Your task to perform on an android device: check android version Image 0: 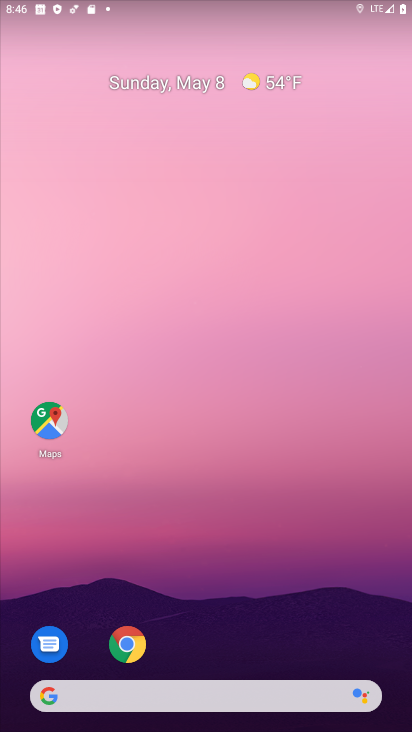
Step 0: click (403, 387)
Your task to perform on an android device: check android version Image 1: 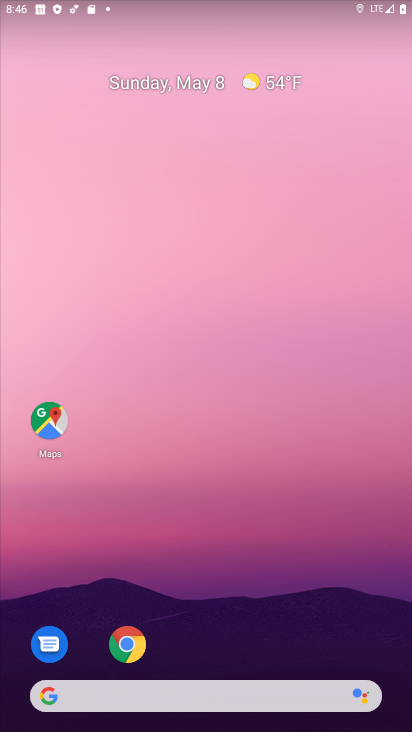
Step 1: drag from (213, 661) to (281, 213)
Your task to perform on an android device: check android version Image 2: 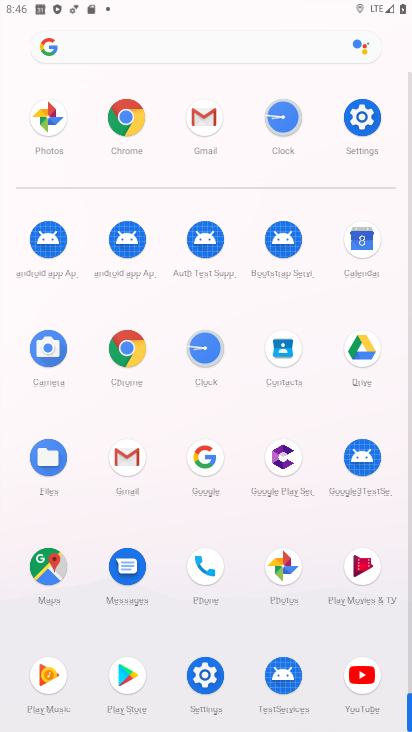
Step 2: click (212, 676)
Your task to perform on an android device: check android version Image 3: 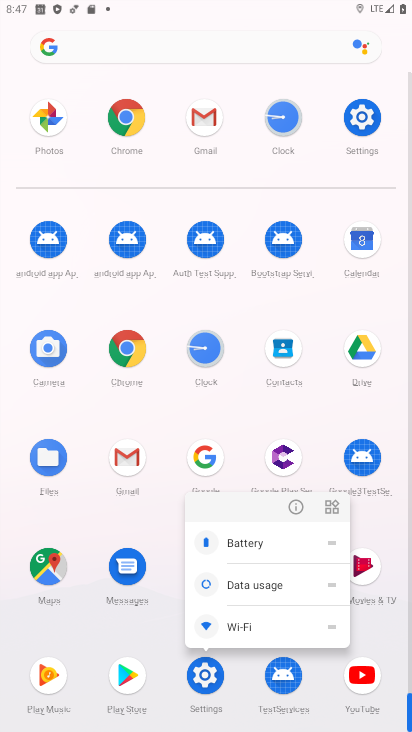
Step 3: click (292, 501)
Your task to perform on an android device: check android version Image 4: 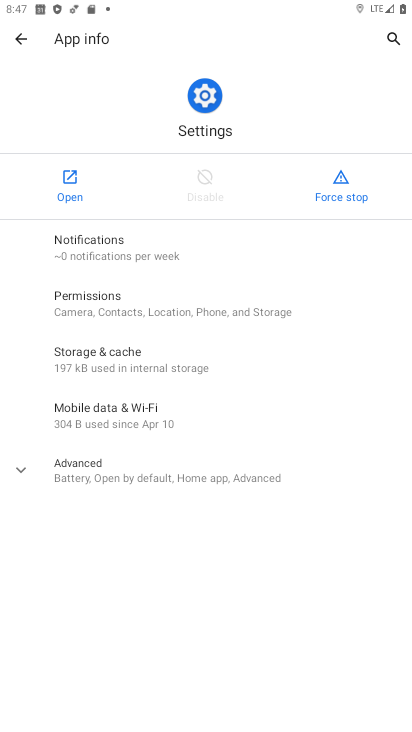
Step 4: click (70, 176)
Your task to perform on an android device: check android version Image 5: 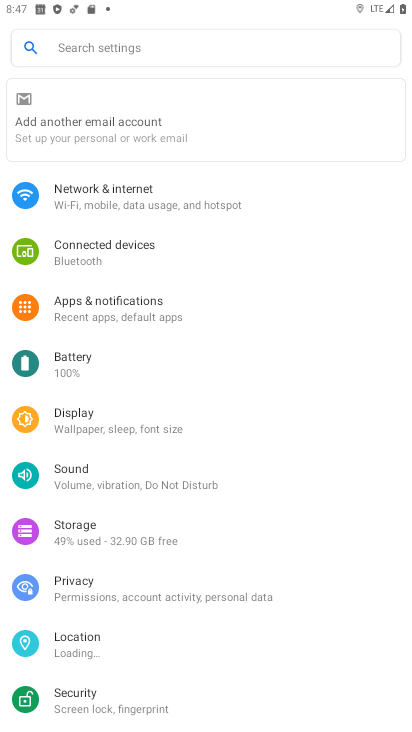
Step 5: drag from (223, 623) to (258, 23)
Your task to perform on an android device: check android version Image 6: 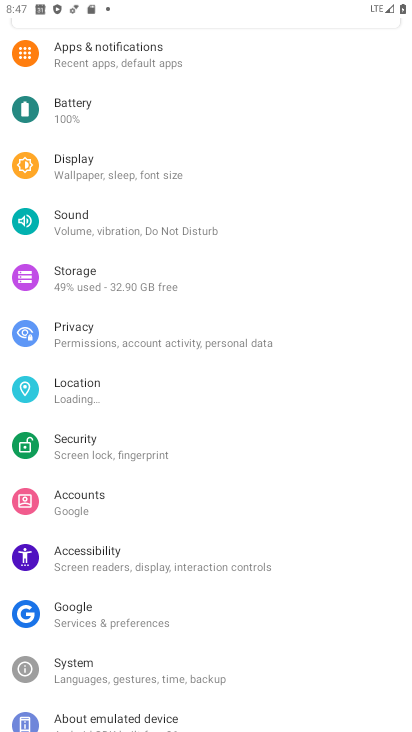
Step 6: drag from (124, 623) to (253, 32)
Your task to perform on an android device: check android version Image 7: 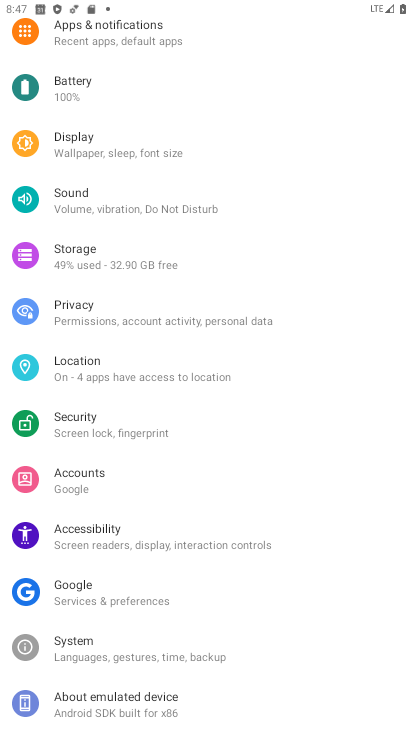
Step 7: click (151, 690)
Your task to perform on an android device: check android version Image 8: 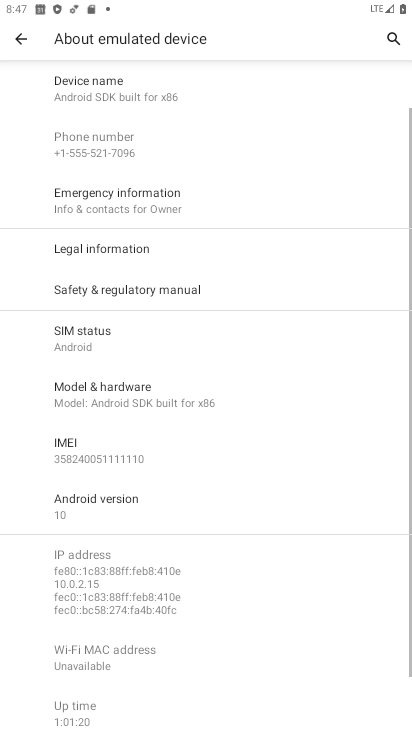
Step 8: drag from (240, 654) to (217, 719)
Your task to perform on an android device: check android version Image 9: 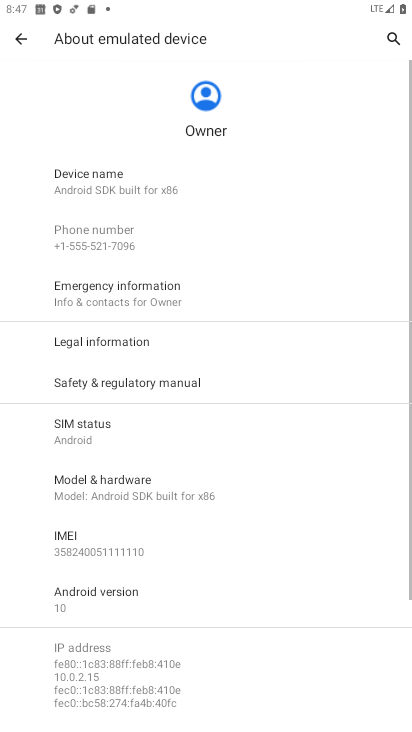
Step 9: drag from (233, 590) to (307, 277)
Your task to perform on an android device: check android version Image 10: 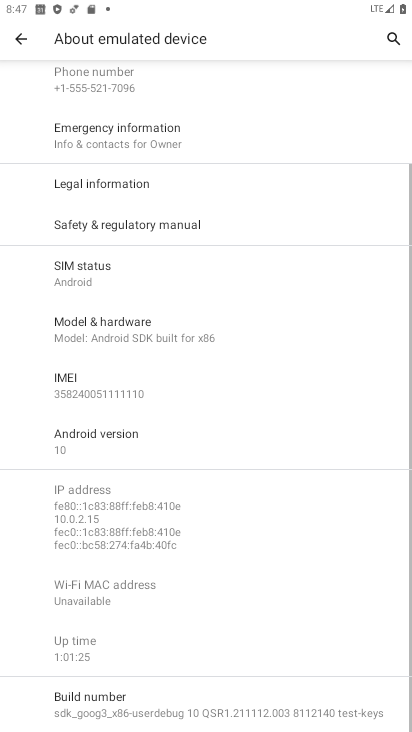
Step 10: click (169, 441)
Your task to perform on an android device: check android version Image 11: 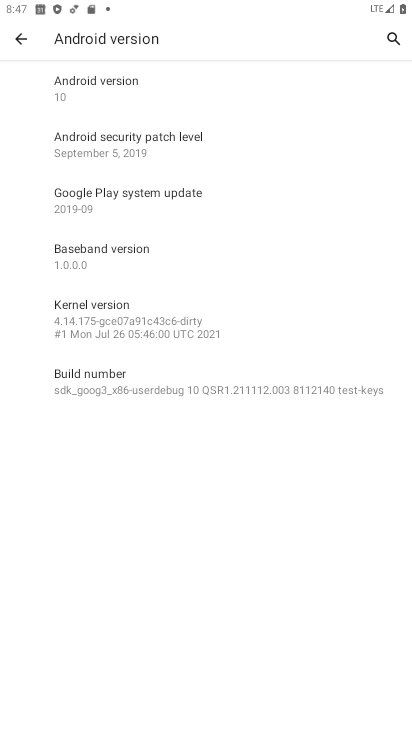
Step 11: task complete